Your task to perform on an android device: Search for seafood restaurants on Google Maps Image 0: 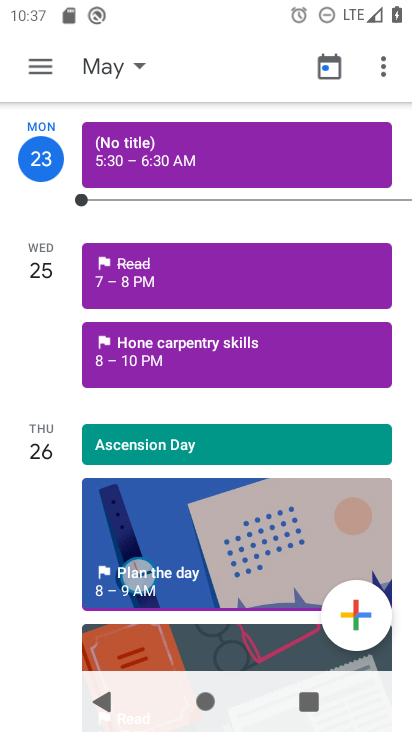
Step 0: press home button
Your task to perform on an android device: Search for seafood restaurants on Google Maps Image 1: 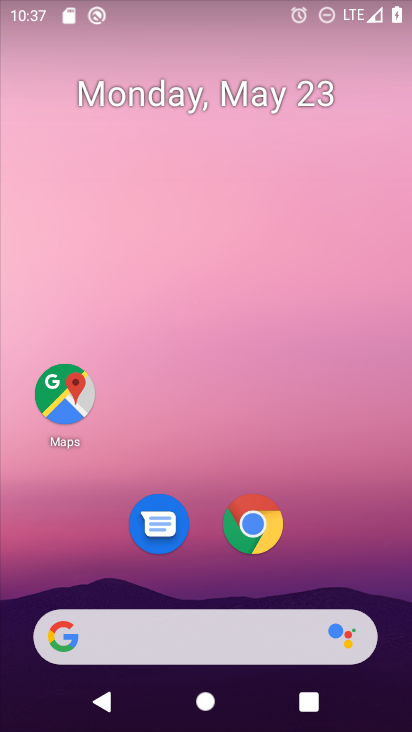
Step 1: click (62, 386)
Your task to perform on an android device: Search for seafood restaurants on Google Maps Image 2: 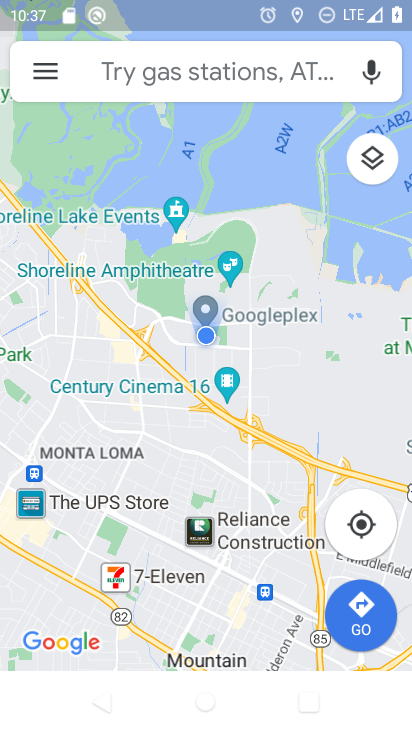
Step 2: click (200, 65)
Your task to perform on an android device: Search for seafood restaurants on Google Maps Image 3: 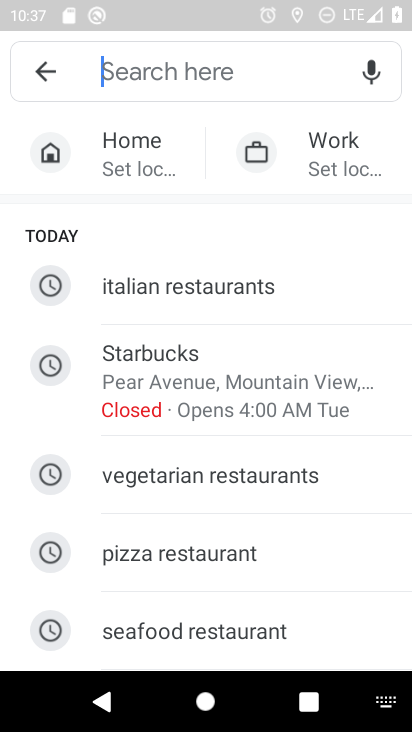
Step 3: click (198, 630)
Your task to perform on an android device: Search for seafood restaurants on Google Maps Image 4: 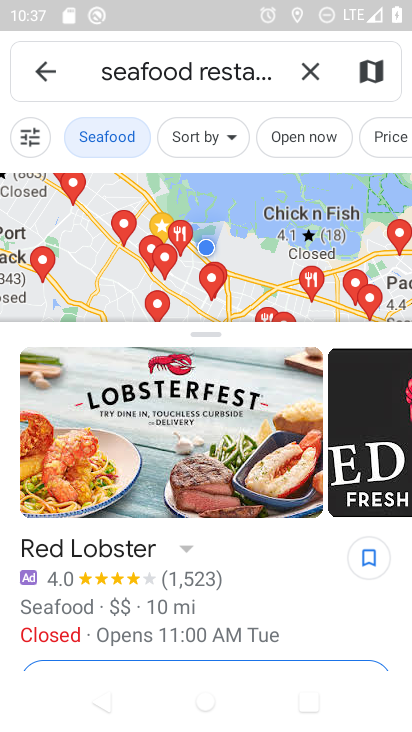
Step 4: task complete